Your task to perform on an android device: turn on priority inbox in the gmail app Image 0: 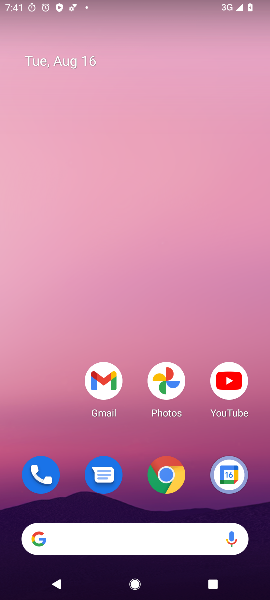
Step 0: drag from (210, 486) to (85, 59)
Your task to perform on an android device: turn on priority inbox in the gmail app Image 1: 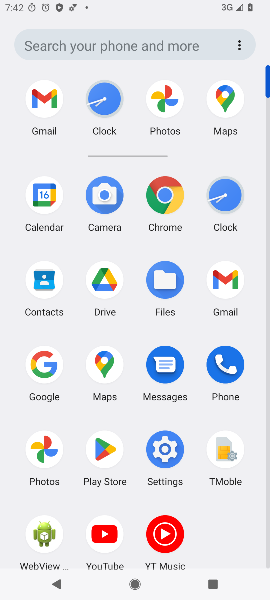
Step 1: click (235, 280)
Your task to perform on an android device: turn on priority inbox in the gmail app Image 2: 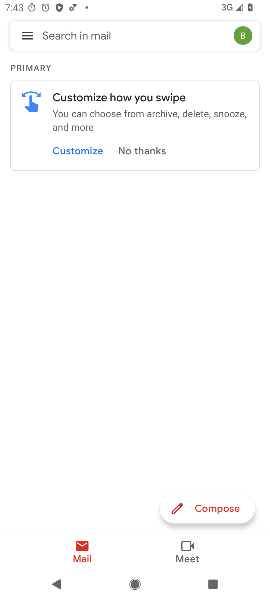
Step 2: click (22, 40)
Your task to perform on an android device: turn on priority inbox in the gmail app Image 3: 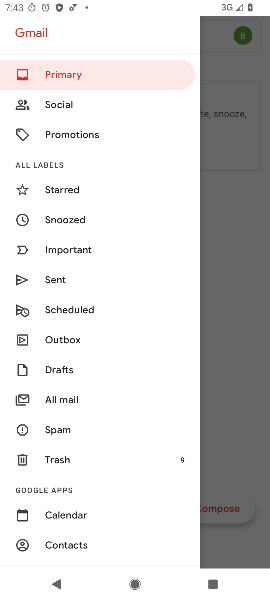
Step 3: drag from (91, 552) to (47, 16)
Your task to perform on an android device: turn on priority inbox in the gmail app Image 4: 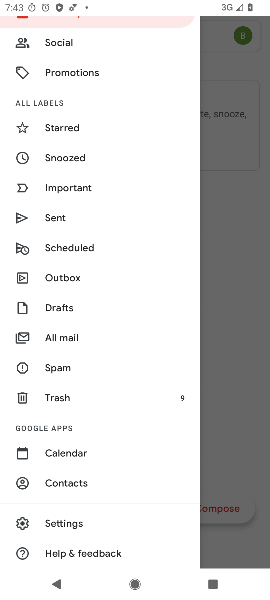
Step 4: click (76, 524)
Your task to perform on an android device: turn on priority inbox in the gmail app Image 5: 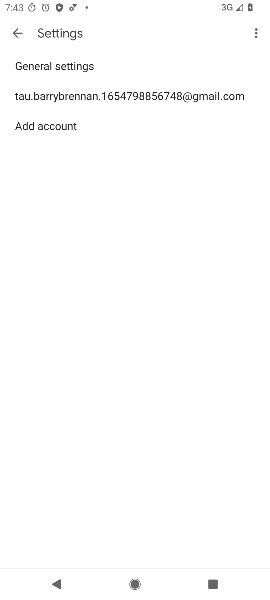
Step 5: click (128, 103)
Your task to perform on an android device: turn on priority inbox in the gmail app Image 6: 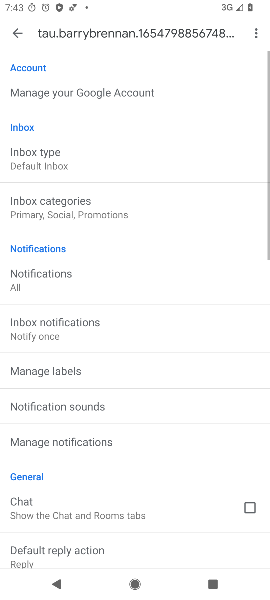
Step 6: click (52, 161)
Your task to perform on an android device: turn on priority inbox in the gmail app Image 7: 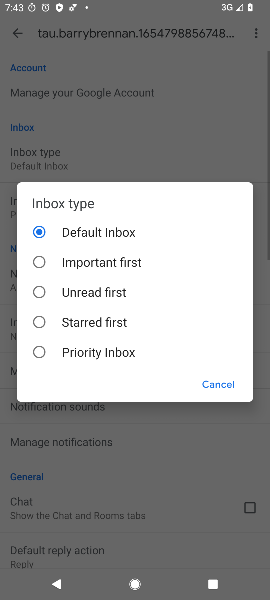
Step 7: click (80, 352)
Your task to perform on an android device: turn on priority inbox in the gmail app Image 8: 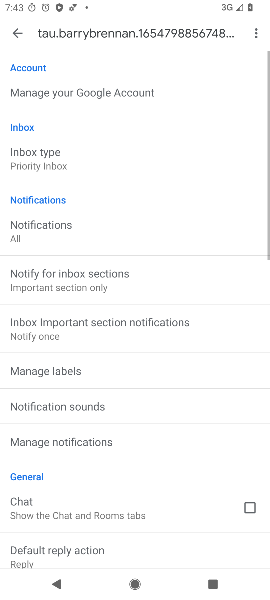
Step 8: task complete